Your task to perform on an android device: turn on javascript in the chrome app Image 0: 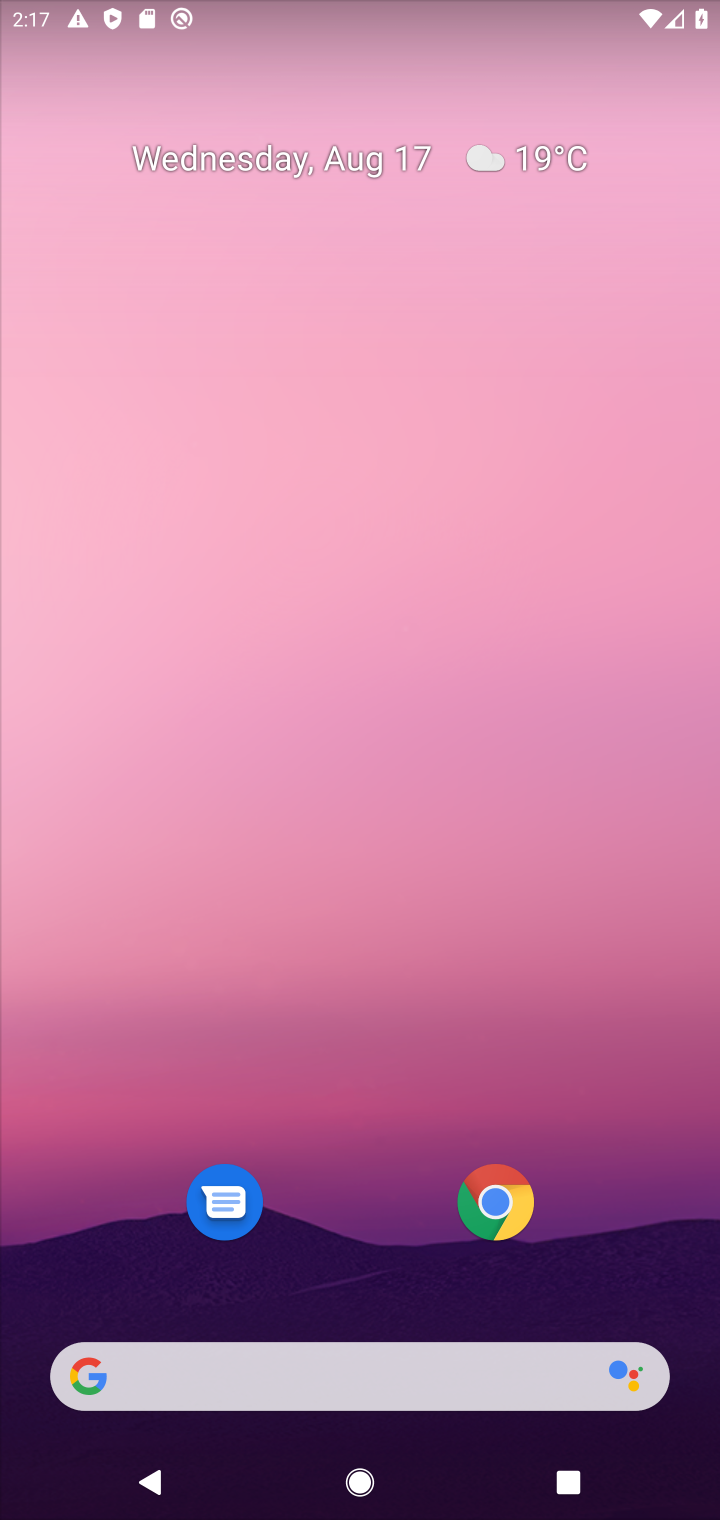
Step 0: click (517, 1194)
Your task to perform on an android device: turn on javascript in the chrome app Image 1: 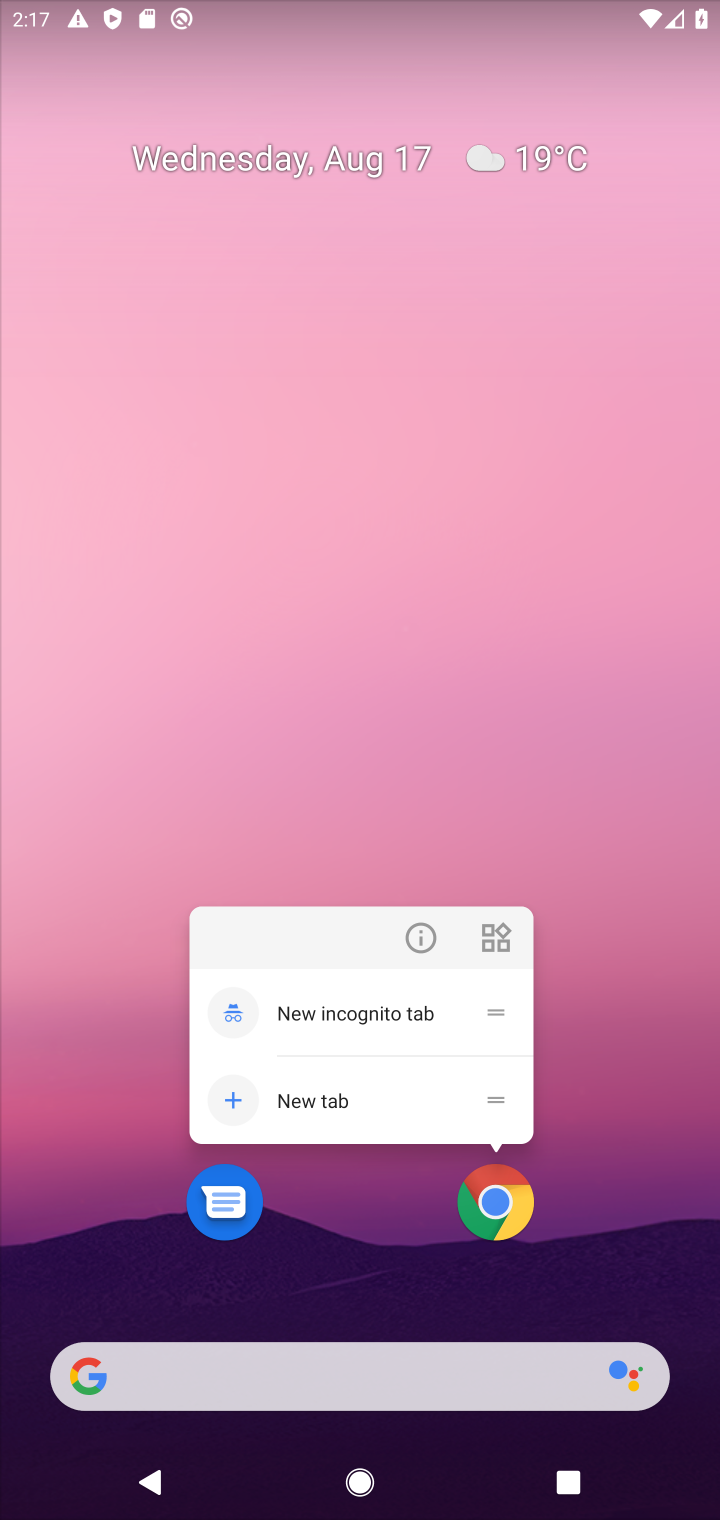
Step 1: click (517, 1190)
Your task to perform on an android device: turn on javascript in the chrome app Image 2: 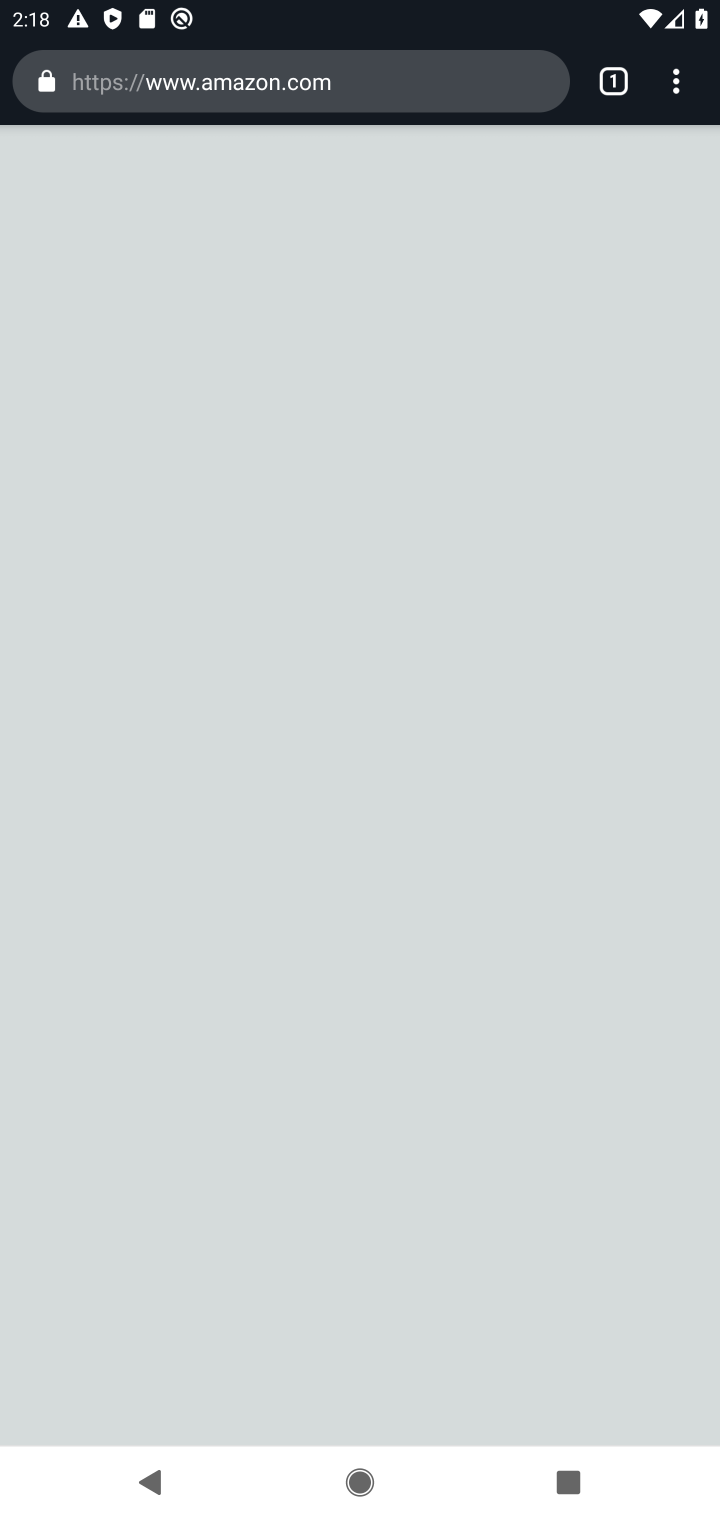
Step 2: click (675, 82)
Your task to perform on an android device: turn on javascript in the chrome app Image 3: 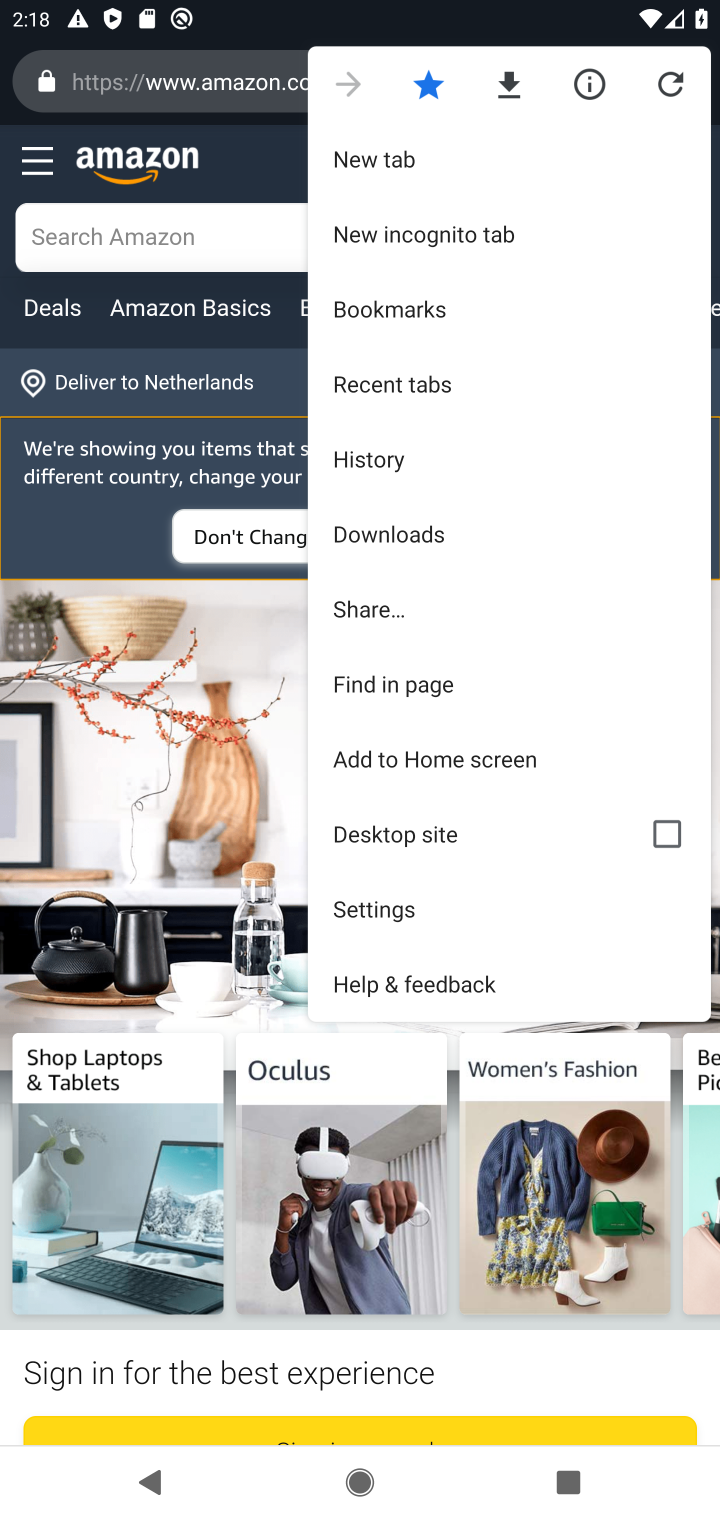
Step 3: click (395, 902)
Your task to perform on an android device: turn on javascript in the chrome app Image 4: 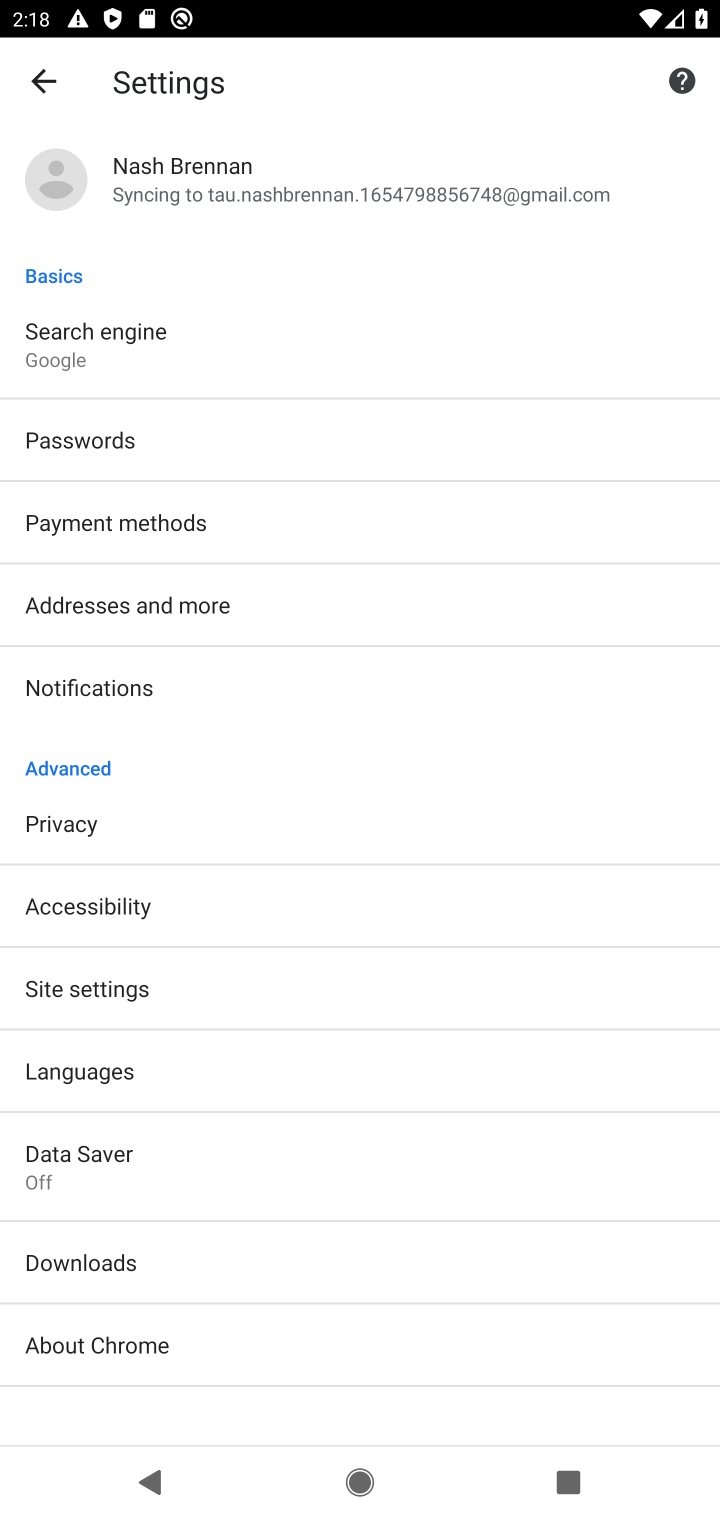
Step 4: click (116, 992)
Your task to perform on an android device: turn on javascript in the chrome app Image 5: 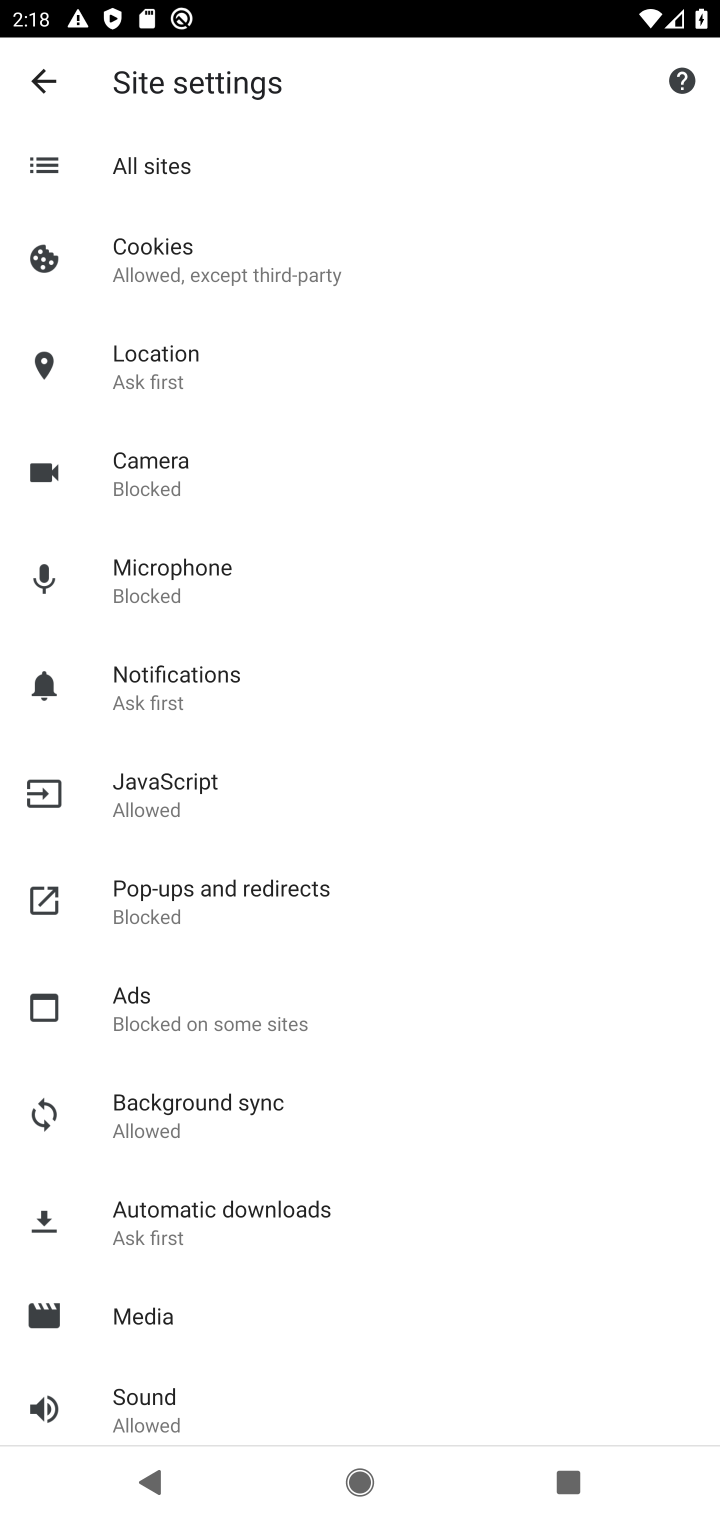
Step 5: click (186, 790)
Your task to perform on an android device: turn on javascript in the chrome app Image 6: 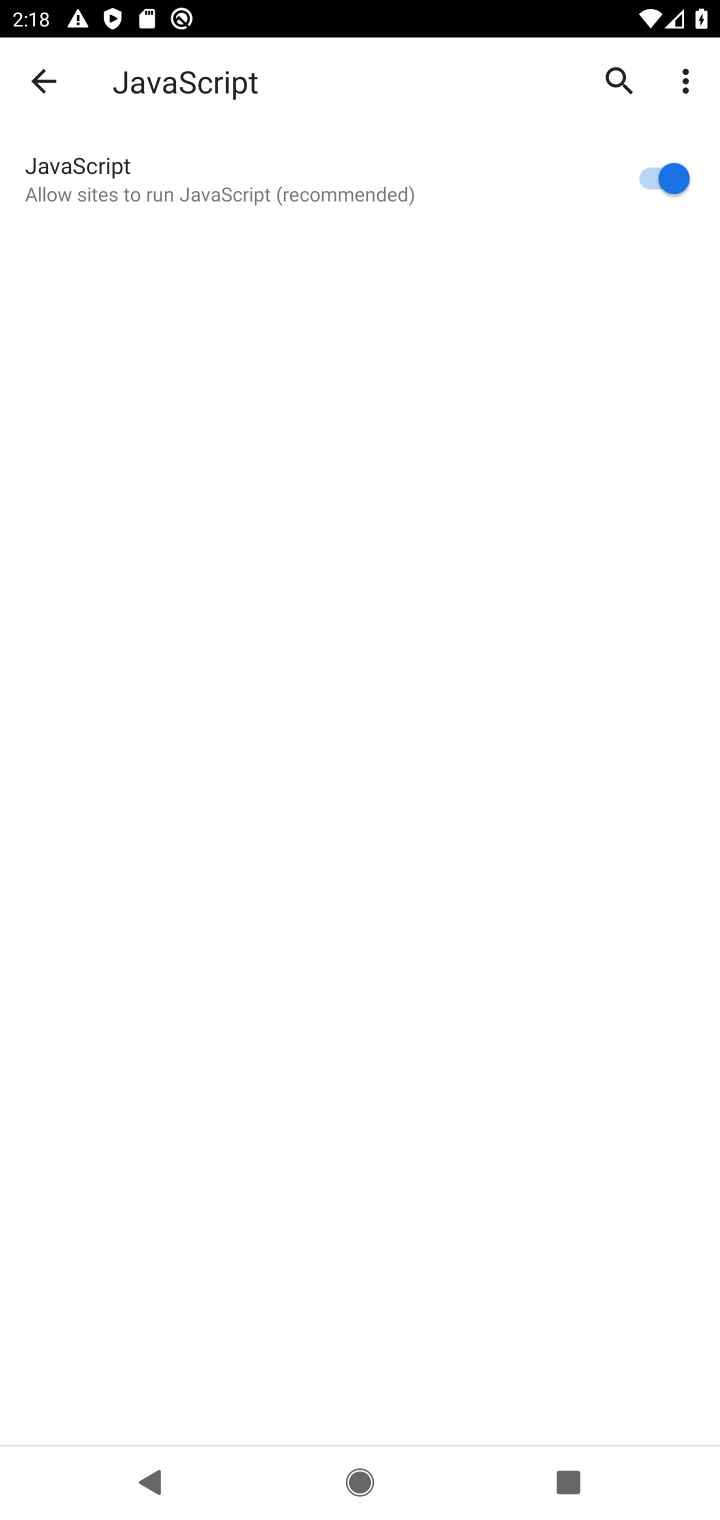
Step 6: task complete